Your task to perform on an android device: Go to CNN.com Image 0: 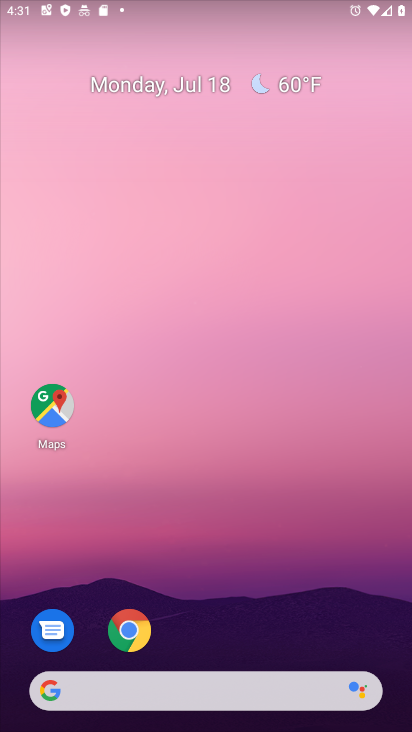
Step 0: drag from (315, 195) to (315, 111)
Your task to perform on an android device: Go to CNN.com Image 1: 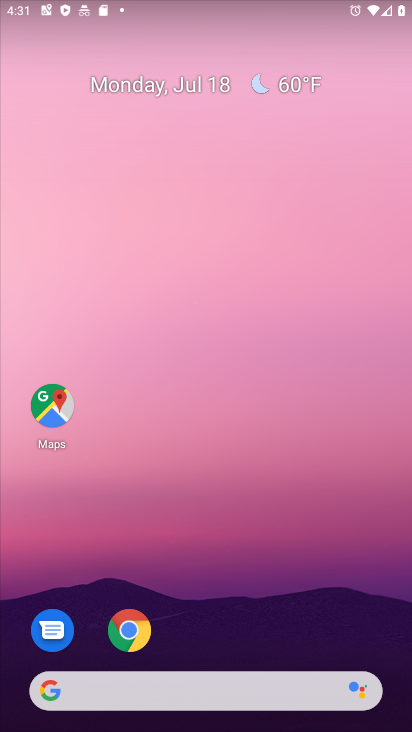
Step 1: drag from (263, 471) to (265, 133)
Your task to perform on an android device: Go to CNN.com Image 2: 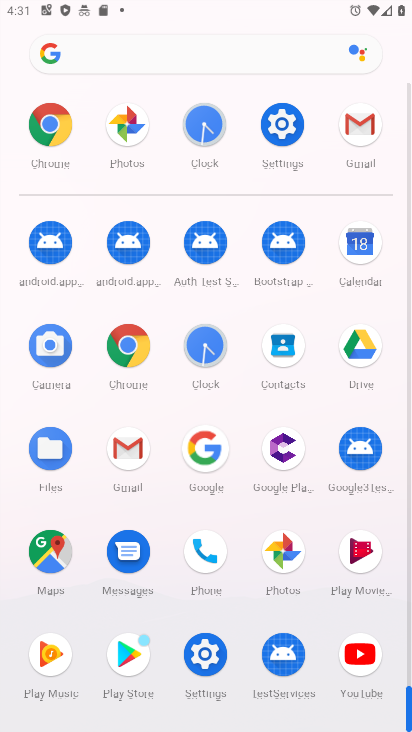
Step 2: drag from (252, 519) to (232, 61)
Your task to perform on an android device: Go to CNN.com Image 3: 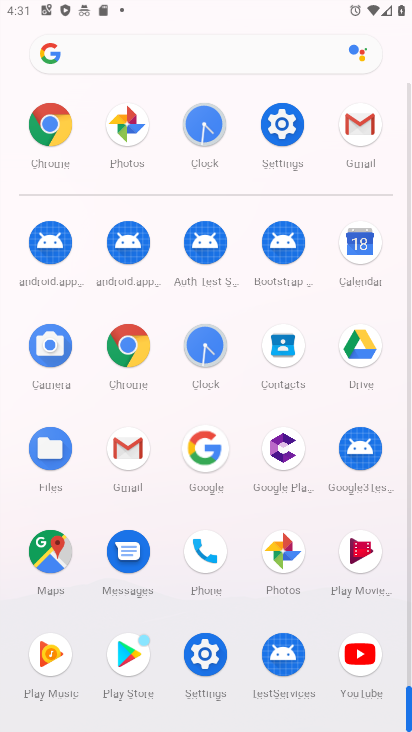
Step 3: click (38, 115)
Your task to perform on an android device: Go to CNN.com Image 4: 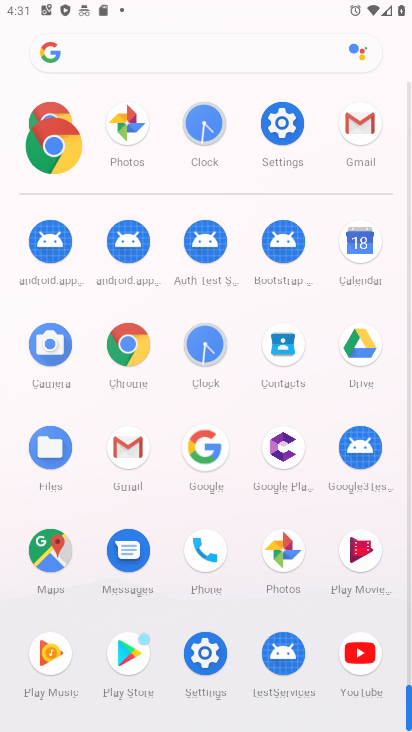
Step 4: click (37, 120)
Your task to perform on an android device: Go to CNN.com Image 5: 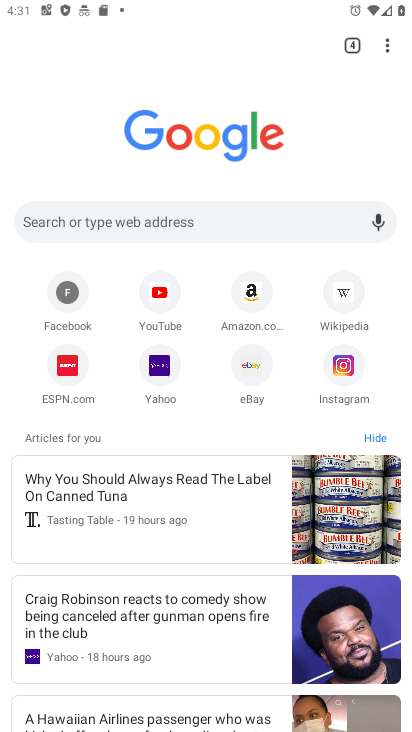
Step 5: click (115, 212)
Your task to perform on an android device: Go to CNN.com Image 6: 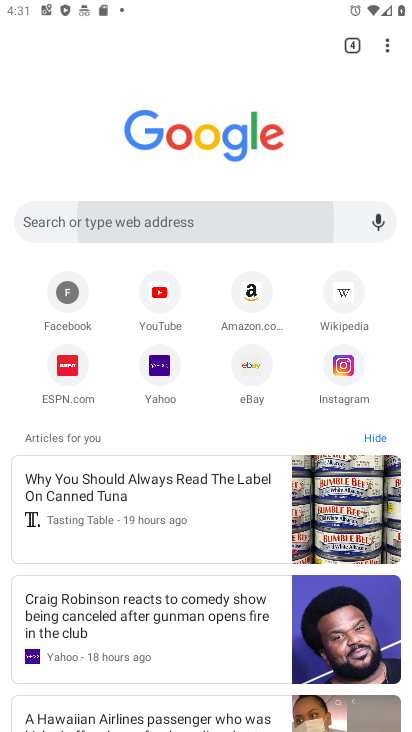
Step 6: click (114, 212)
Your task to perform on an android device: Go to CNN.com Image 7: 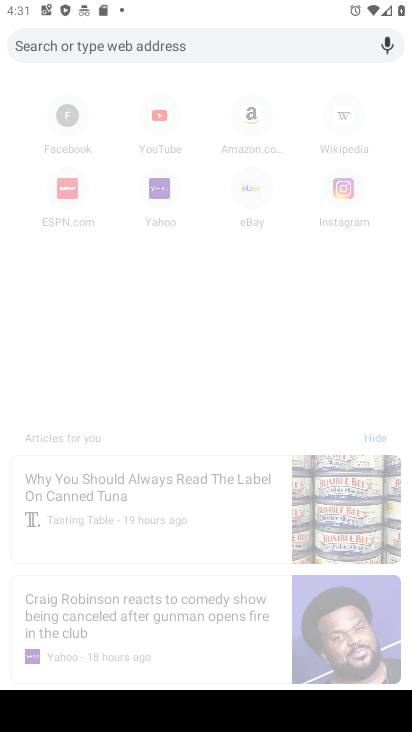
Step 7: click (113, 213)
Your task to perform on an android device: Go to CNN.com Image 8: 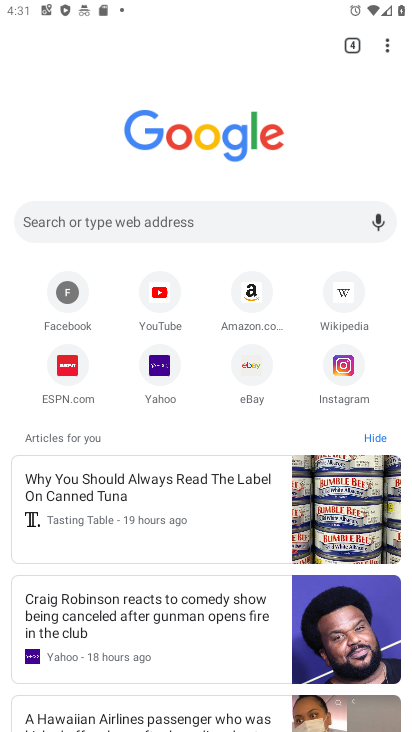
Step 8: type "C"
Your task to perform on an android device: Go to CNN.com Image 9: 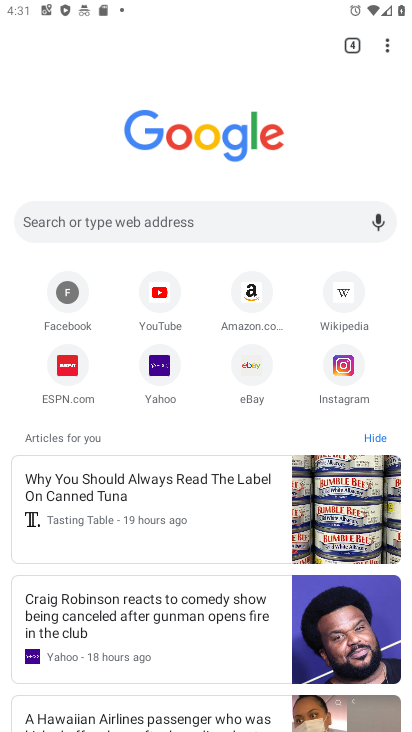
Step 9: click (37, 221)
Your task to perform on an android device: Go to CNN.com Image 10: 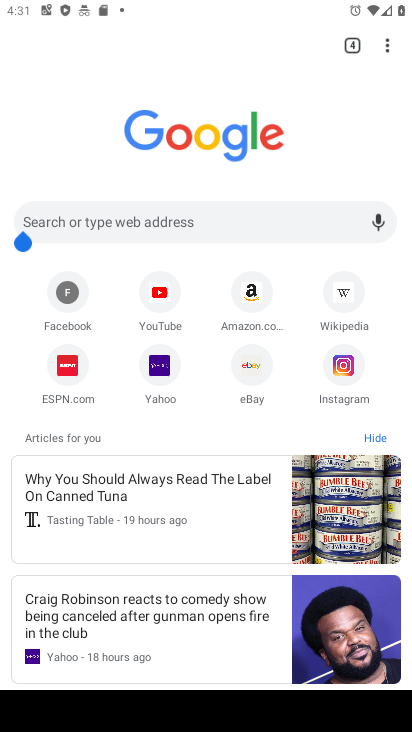
Step 10: click (41, 218)
Your task to perform on an android device: Go to CNN.com Image 11: 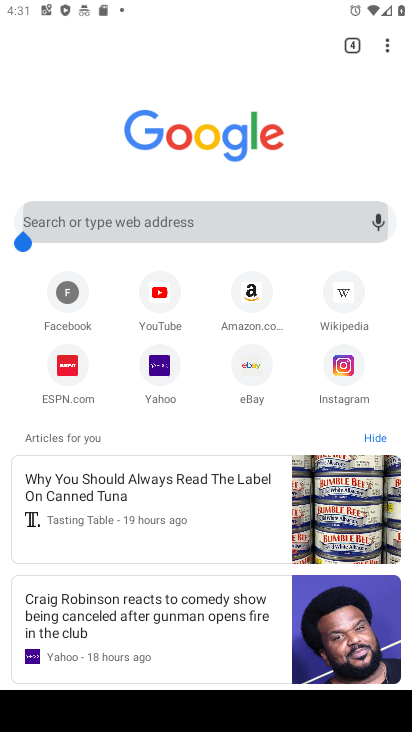
Step 11: click (65, 212)
Your task to perform on an android device: Go to CNN.com Image 12: 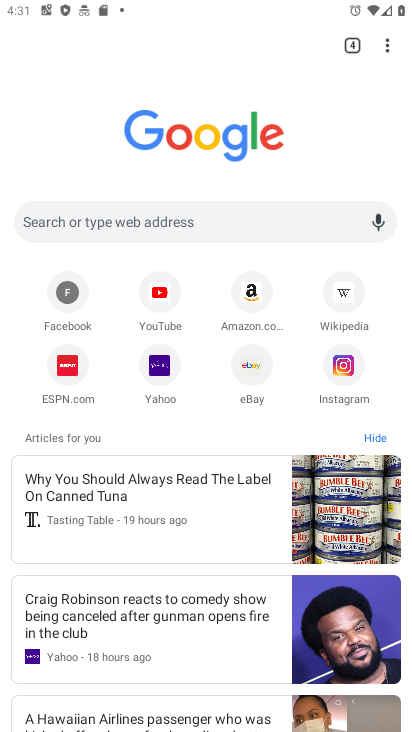
Step 12: click (77, 208)
Your task to perform on an android device: Go to CNN.com Image 13: 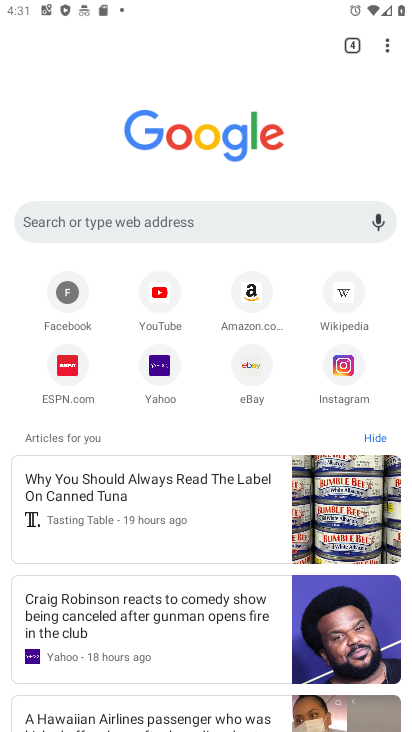
Step 13: click (62, 227)
Your task to perform on an android device: Go to CNN.com Image 14: 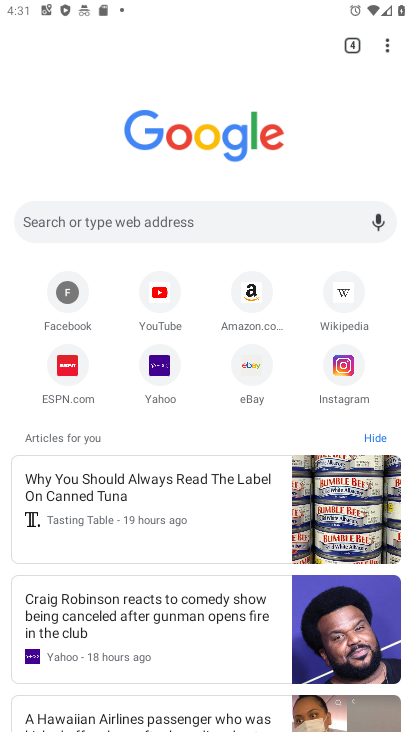
Step 14: click (66, 225)
Your task to perform on an android device: Go to CNN.com Image 15: 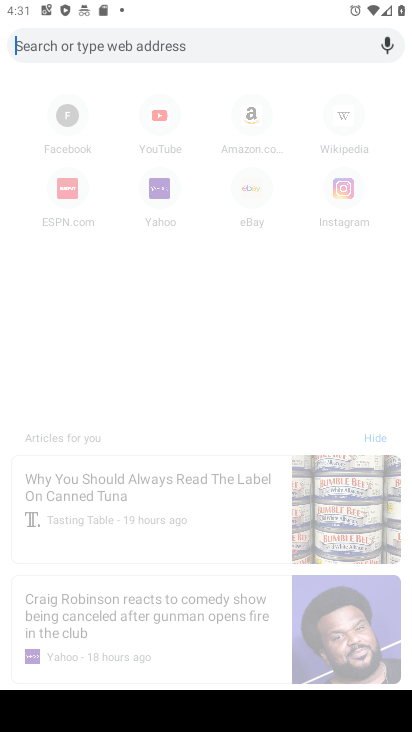
Step 15: type "CNN.com"
Your task to perform on an android device: Go to CNN.com Image 16: 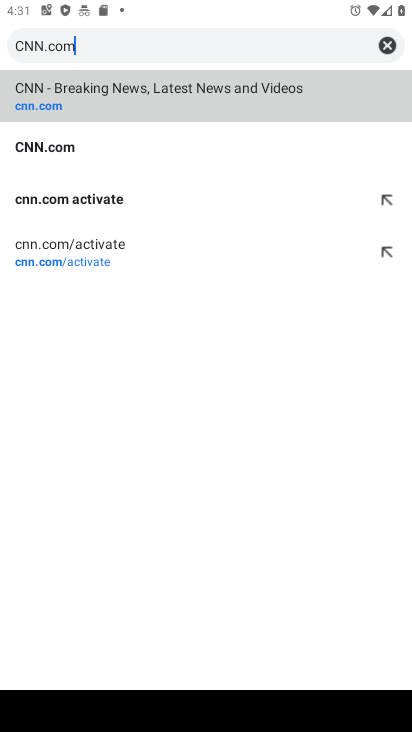
Step 16: click (161, 82)
Your task to perform on an android device: Go to CNN.com Image 17: 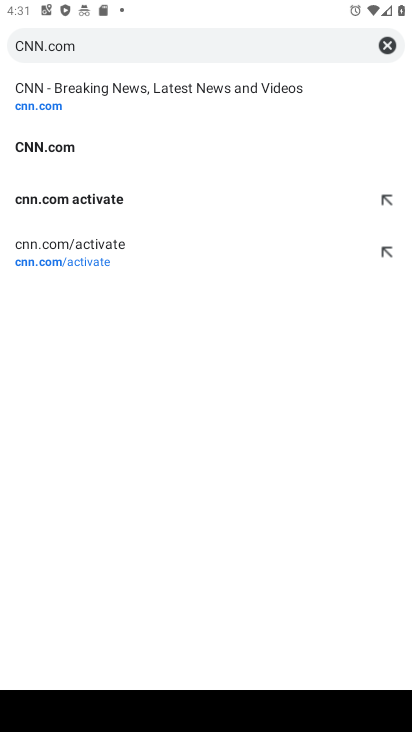
Step 17: click (160, 81)
Your task to perform on an android device: Go to CNN.com Image 18: 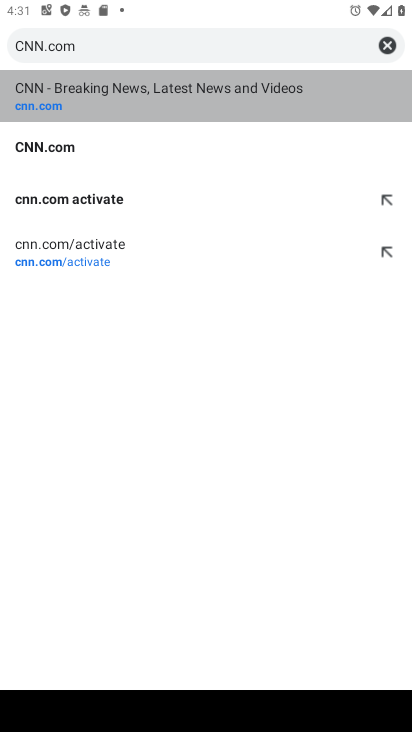
Step 18: click (160, 81)
Your task to perform on an android device: Go to CNN.com Image 19: 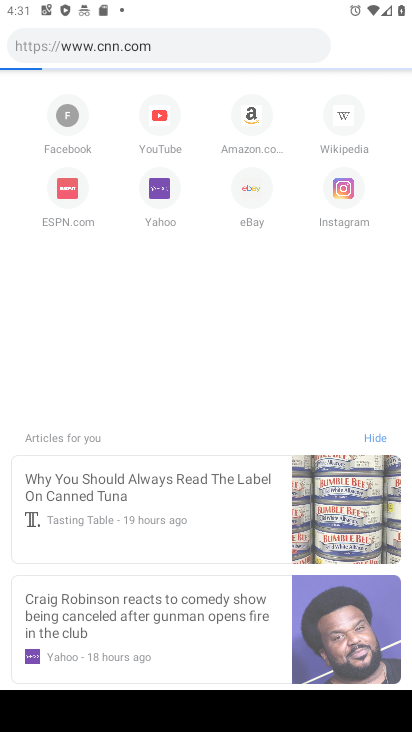
Step 19: click (160, 81)
Your task to perform on an android device: Go to CNN.com Image 20: 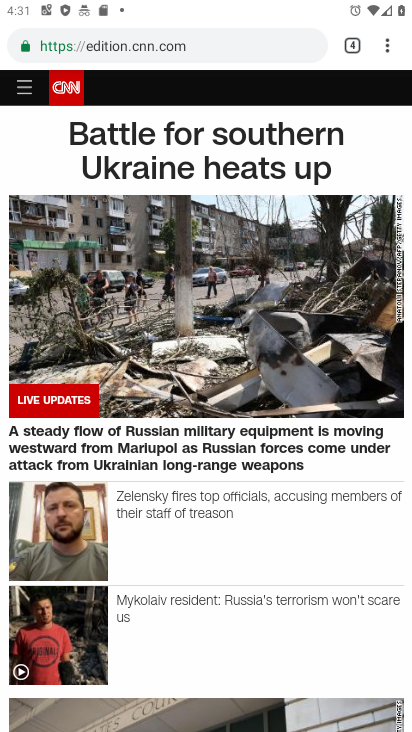
Step 20: task complete